Your task to perform on an android device: Go to accessibility settings Image 0: 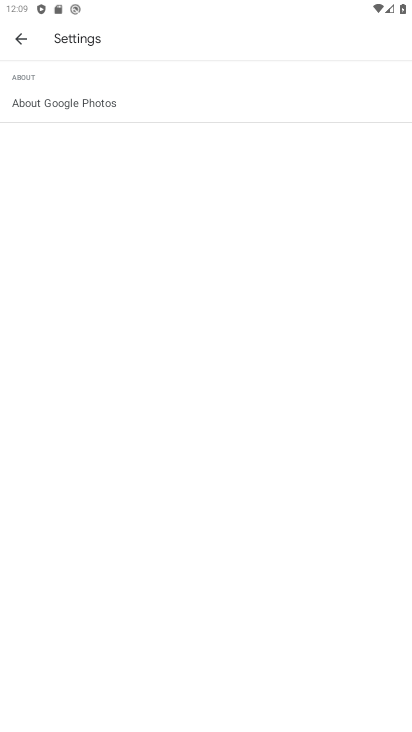
Step 0: click (20, 38)
Your task to perform on an android device: Go to accessibility settings Image 1: 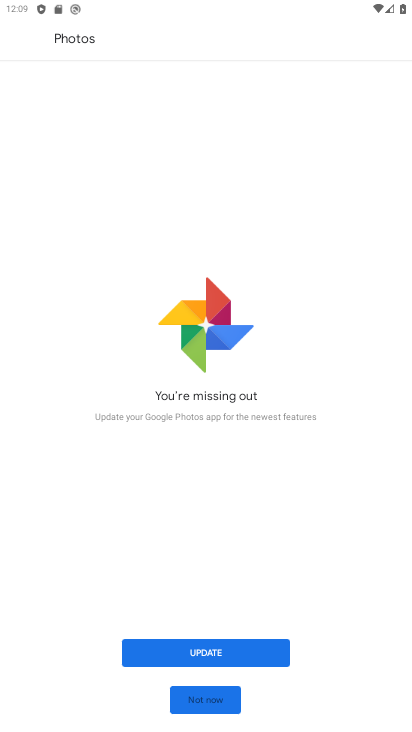
Step 1: press home button
Your task to perform on an android device: Go to accessibility settings Image 2: 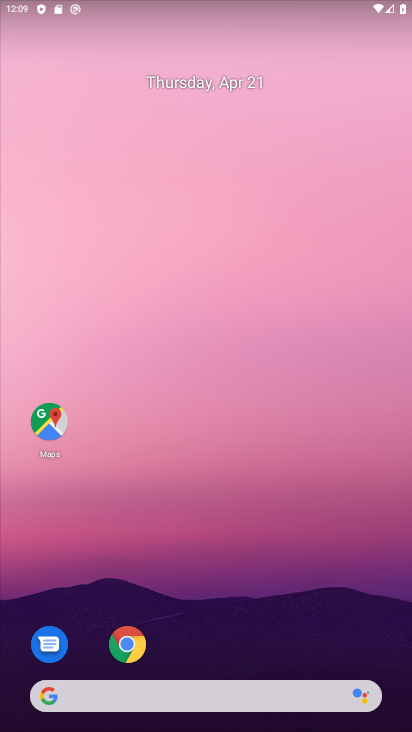
Step 2: drag from (226, 627) to (323, 39)
Your task to perform on an android device: Go to accessibility settings Image 3: 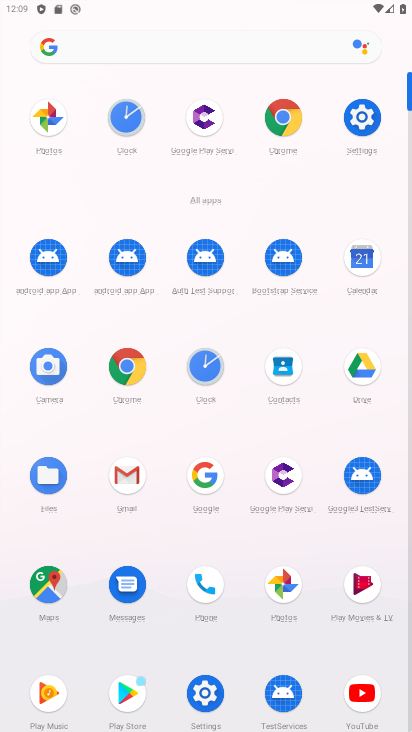
Step 3: click (360, 126)
Your task to perform on an android device: Go to accessibility settings Image 4: 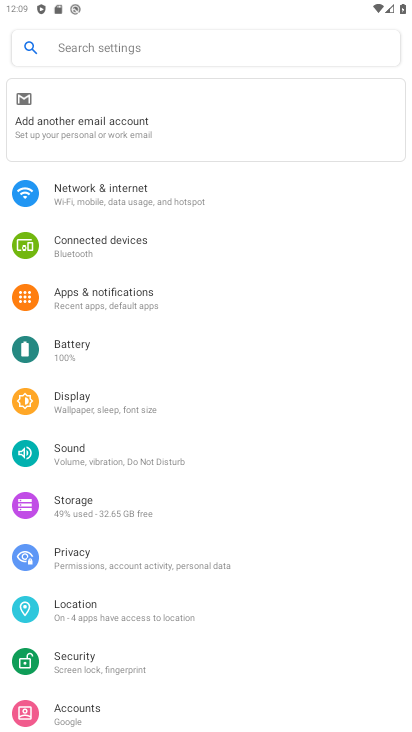
Step 4: drag from (135, 644) to (279, 124)
Your task to perform on an android device: Go to accessibility settings Image 5: 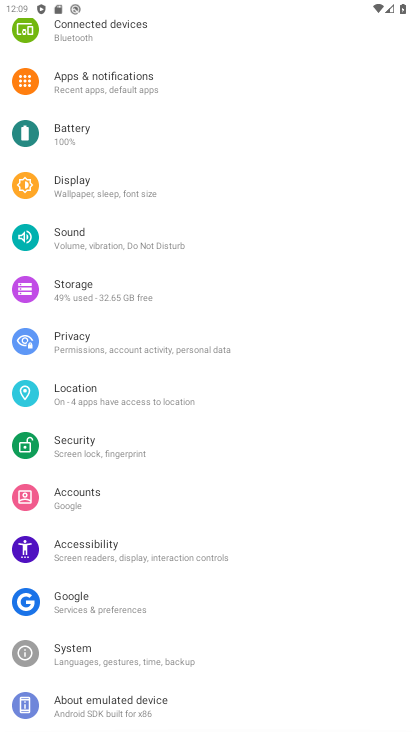
Step 5: click (57, 562)
Your task to perform on an android device: Go to accessibility settings Image 6: 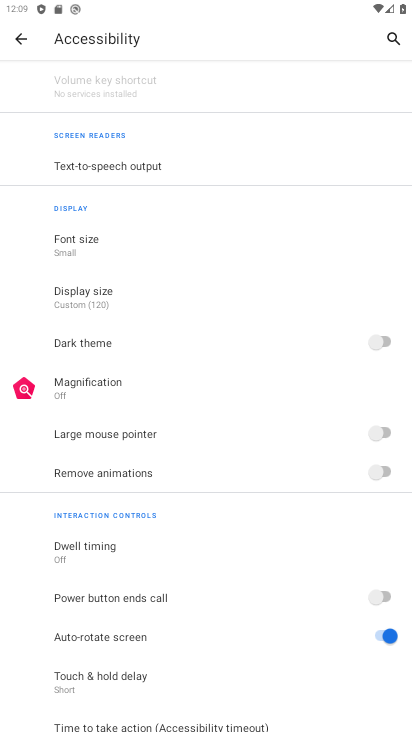
Step 6: task complete